Your task to perform on an android device: empty trash in google photos Image 0: 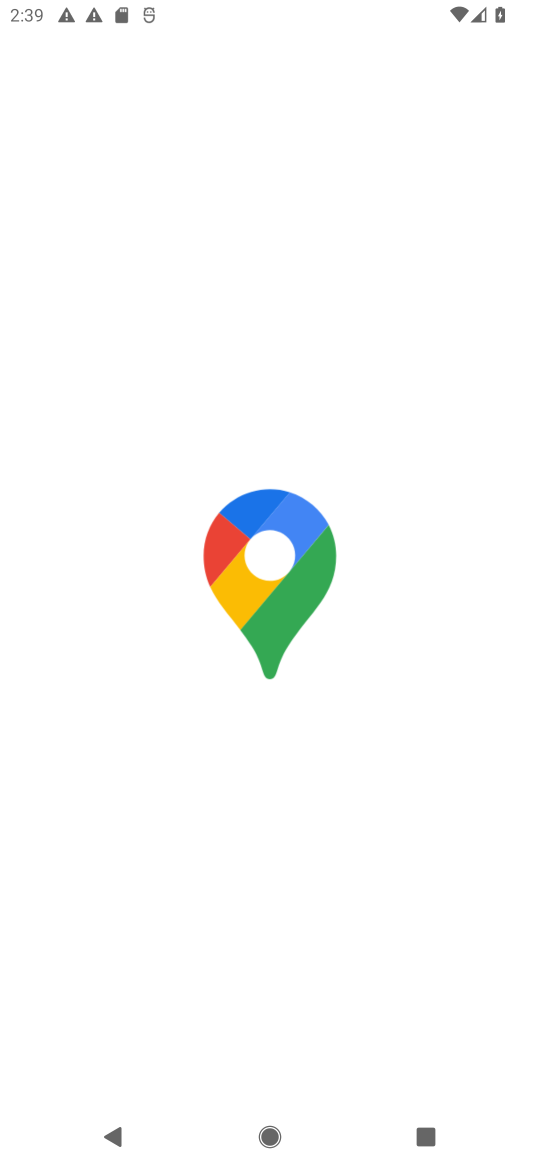
Step 0: press home button
Your task to perform on an android device: empty trash in google photos Image 1: 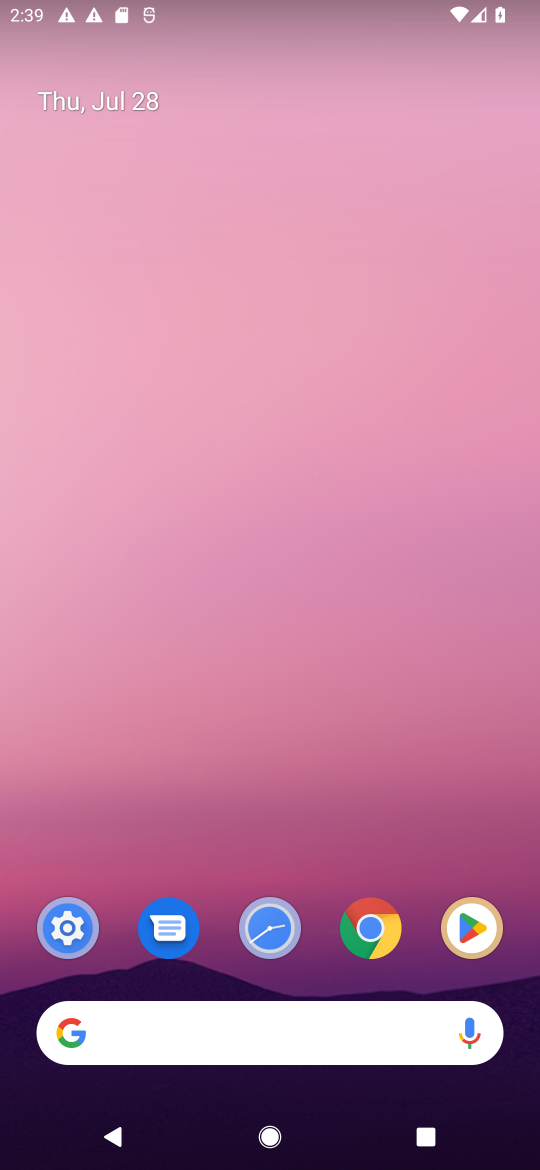
Step 1: drag from (354, 607) to (354, 47)
Your task to perform on an android device: empty trash in google photos Image 2: 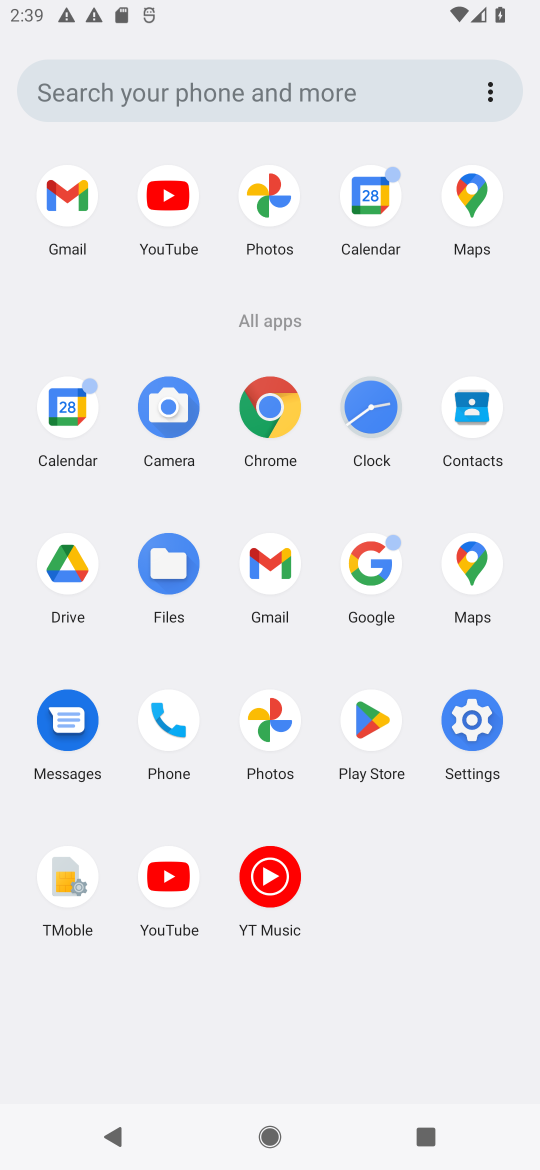
Step 2: click (296, 721)
Your task to perform on an android device: empty trash in google photos Image 3: 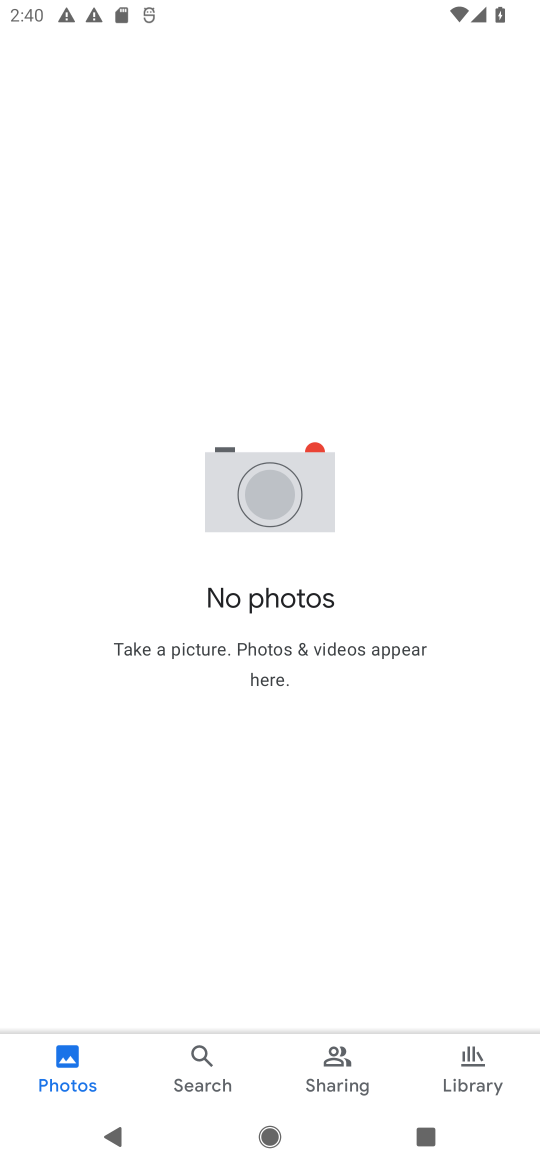
Step 3: click (470, 1087)
Your task to perform on an android device: empty trash in google photos Image 4: 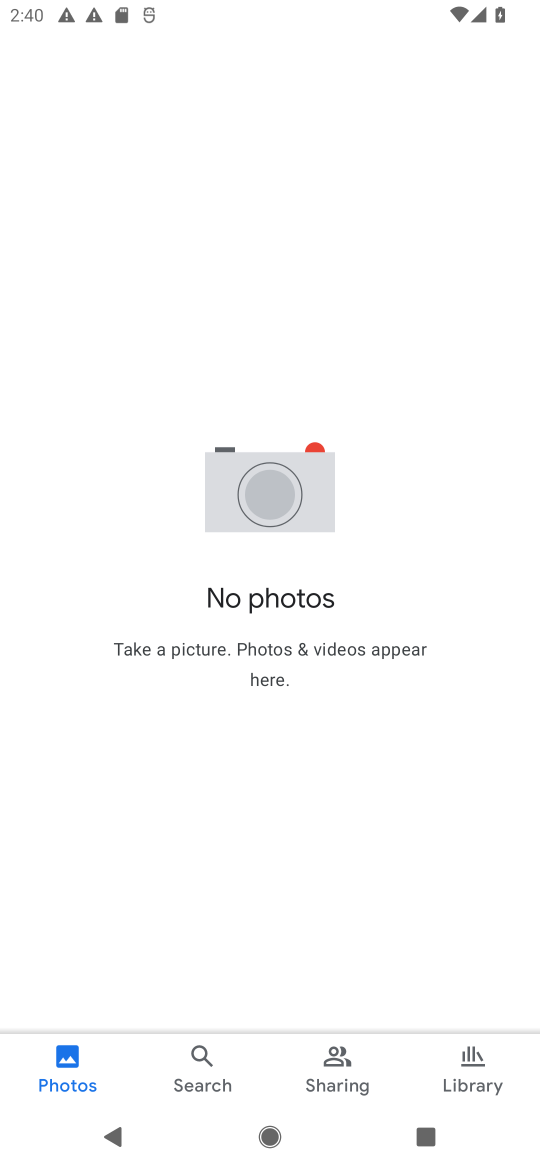
Step 4: click (474, 1090)
Your task to perform on an android device: empty trash in google photos Image 5: 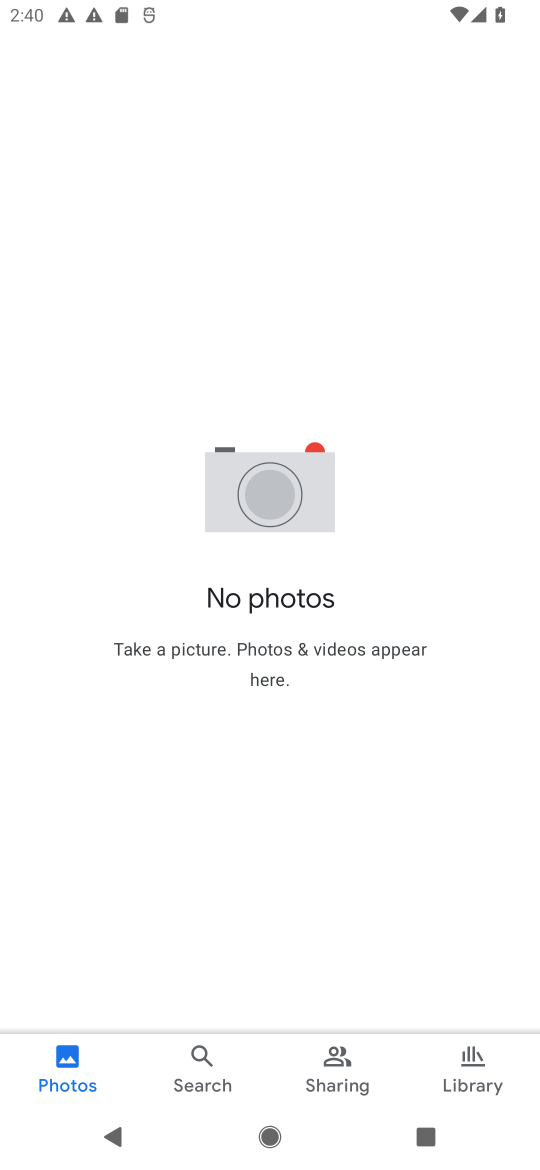
Step 5: click (474, 1063)
Your task to perform on an android device: empty trash in google photos Image 6: 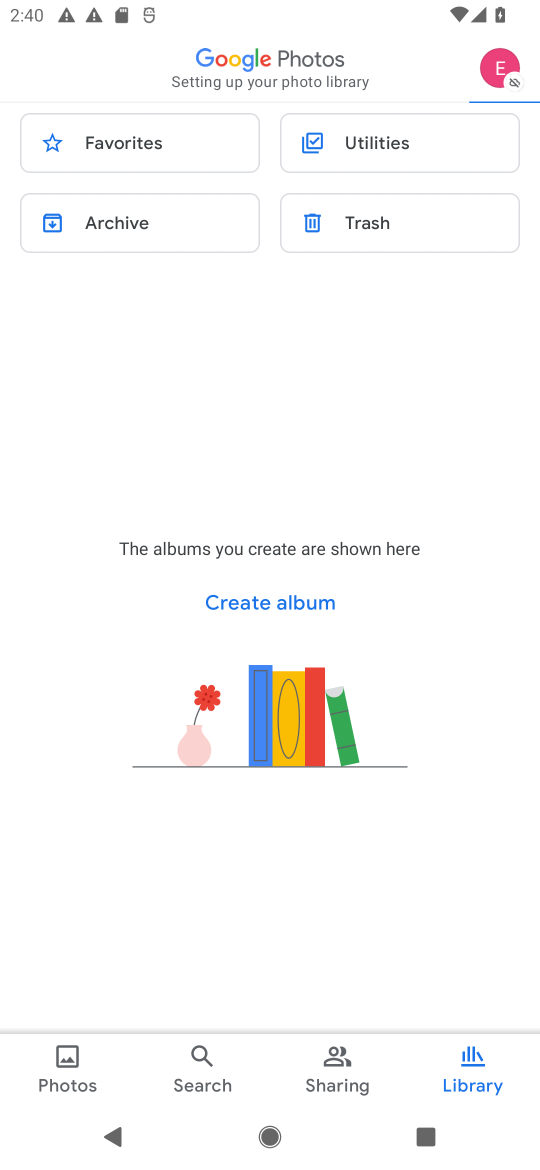
Step 6: click (444, 220)
Your task to perform on an android device: empty trash in google photos Image 7: 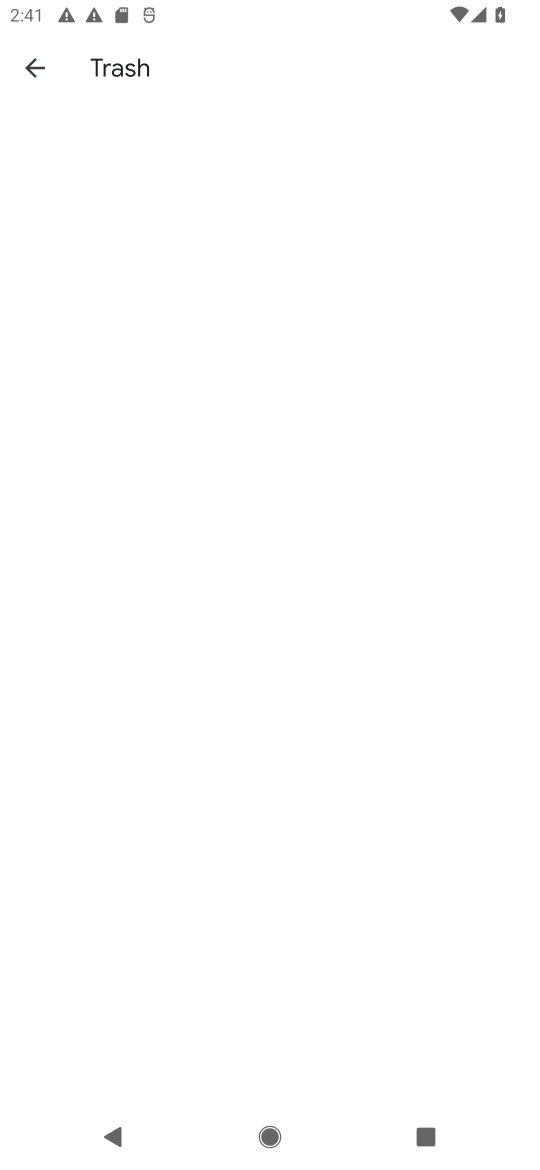
Step 7: task complete